Your task to perform on an android device: Open CNN.com Image 0: 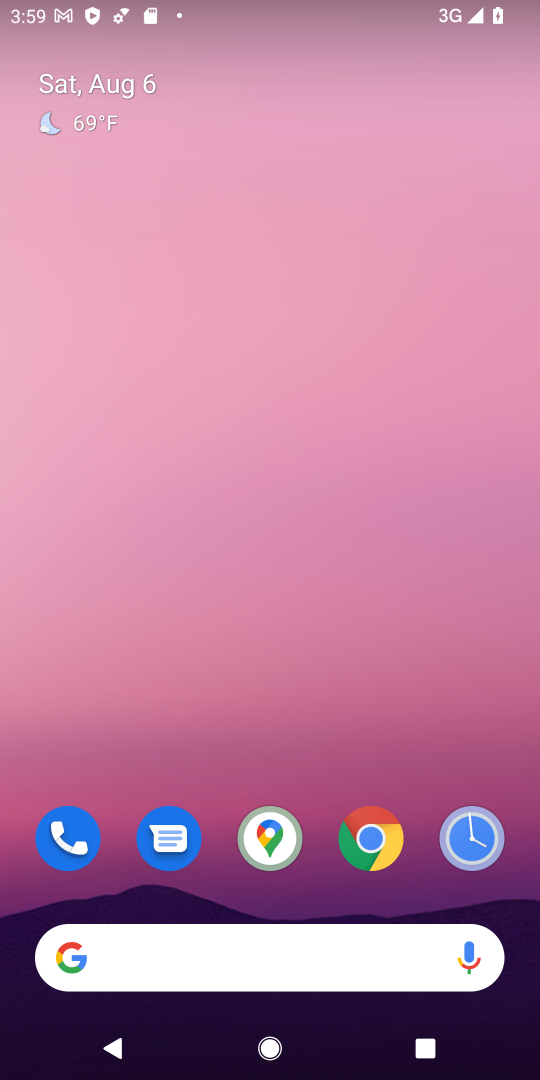
Step 0: click (378, 846)
Your task to perform on an android device: Open CNN.com Image 1: 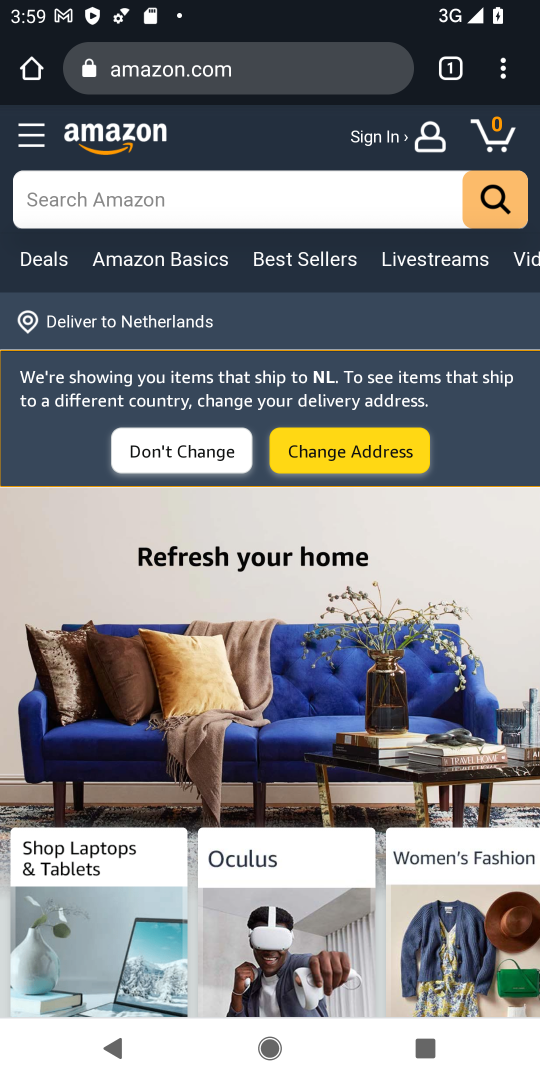
Step 1: press home button
Your task to perform on an android device: Open CNN.com Image 2: 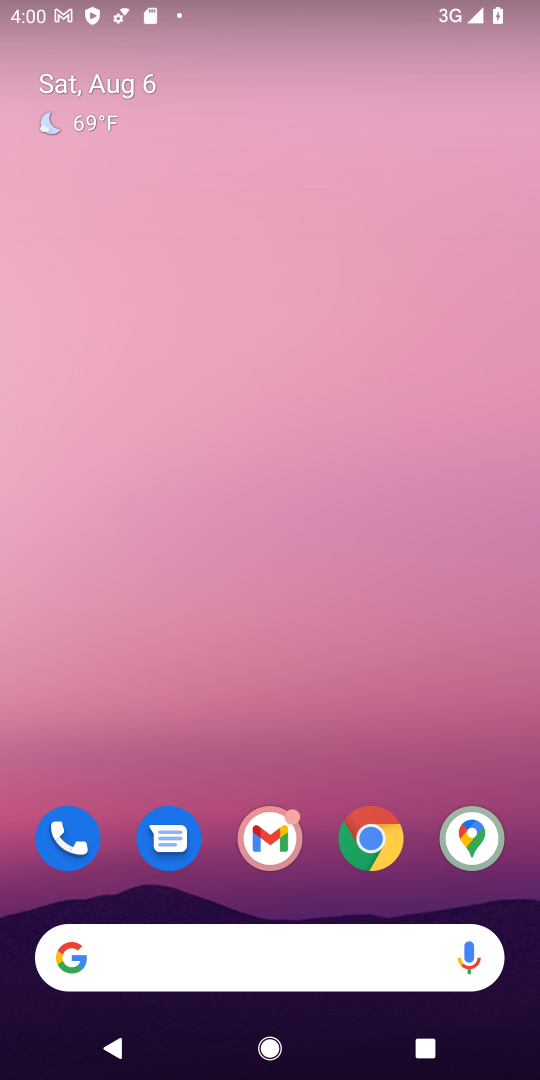
Step 2: click (156, 958)
Your task to perform on an android device: Open CNN.com Image 3: 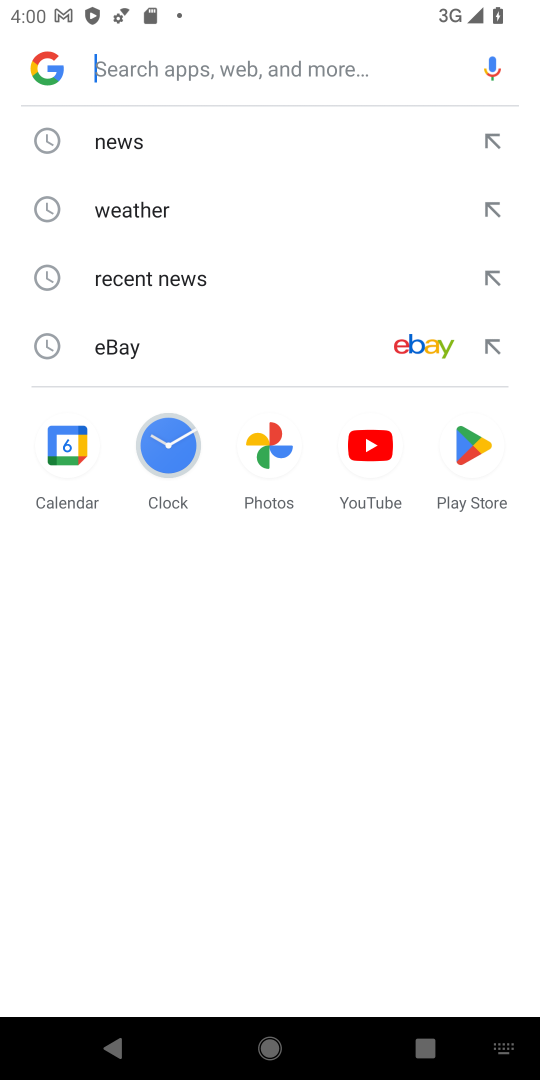
Step 3: click (263, 22)
Your task to perform on an android device: Open CNN.com Image 4: 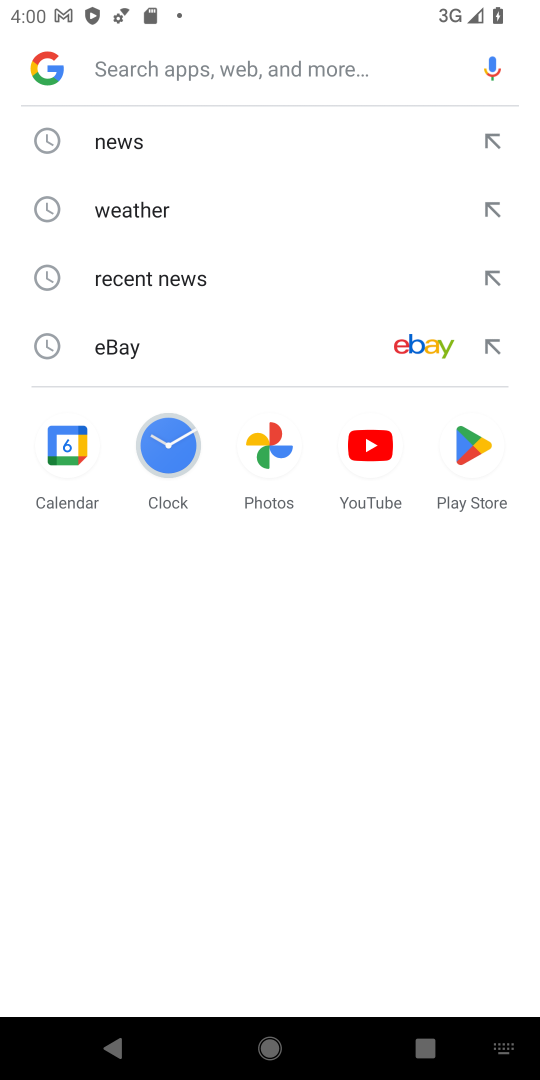
Step 4: type "CNN.com"
Your task to perform on an android device: Open CNN.com Image 5: 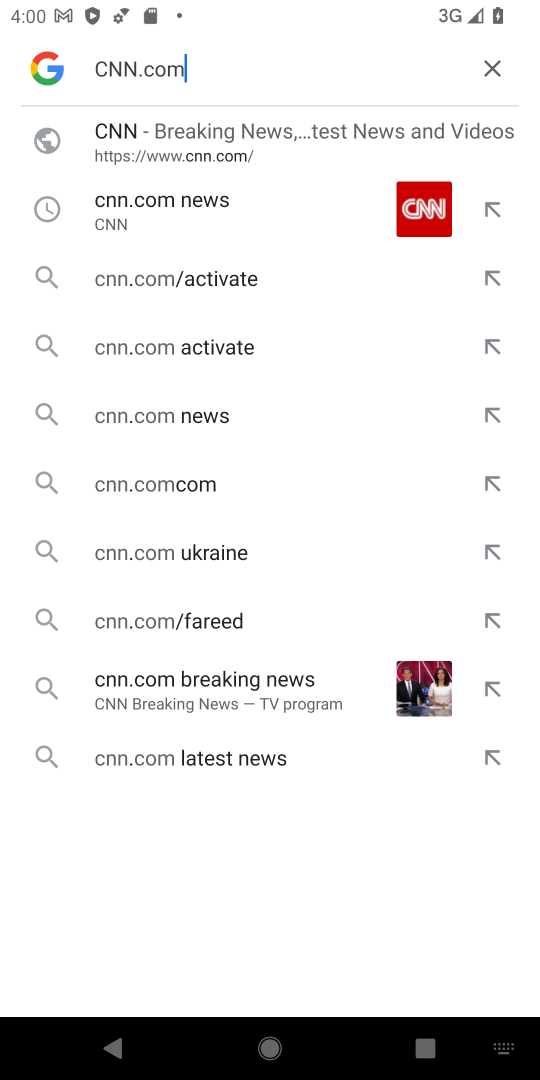
Step 5: click (212, 144)
Your task to perform on an android device: Open CNN.com Image 6: 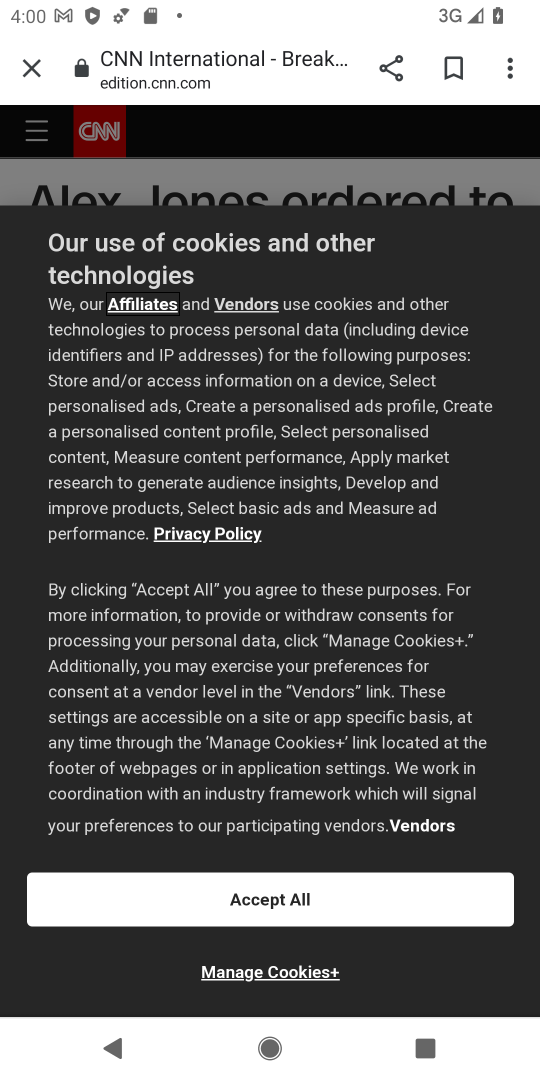
Step 6: task complete